Your task to perform on an android device: Go to notification settings Image 0: 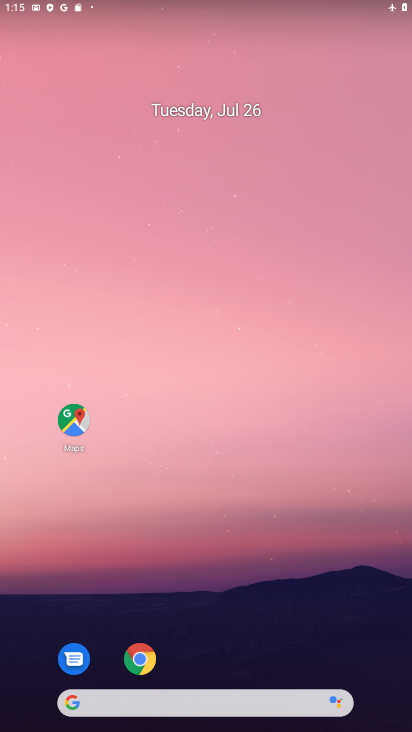
Step 0: drag from (263, 667) to (277, 24)
Your task to perform on an android device: Go to notification settings Image 1: 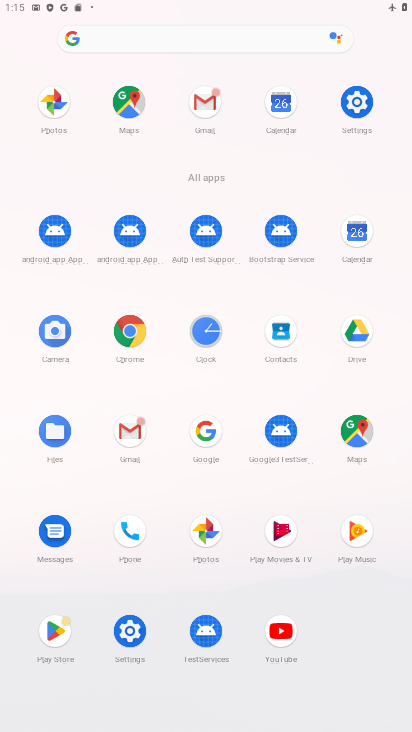
Step 1: click (353, 102)
Your task to perform on an android device: Go to notification settings Image 2: 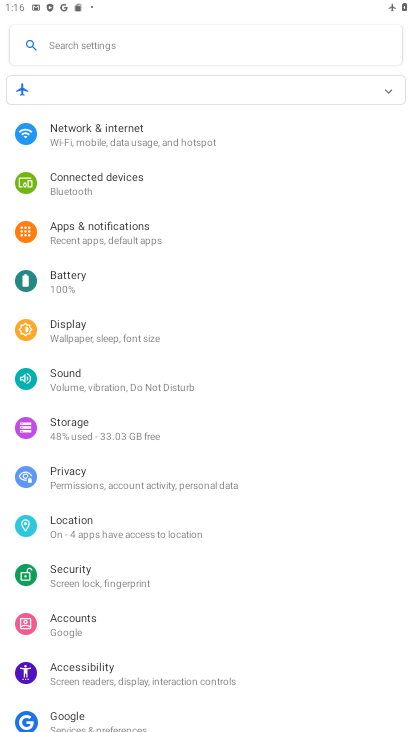
Step 2: click (94, 238)
Your task to perform on an android device: Go to notification settings Image 3: 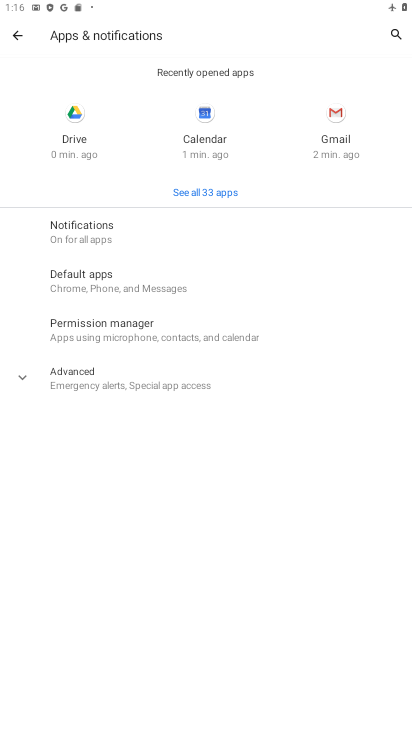
Step 3: click (88, 226)
Your task to perform on an android device: Go to notification settings Image 4: 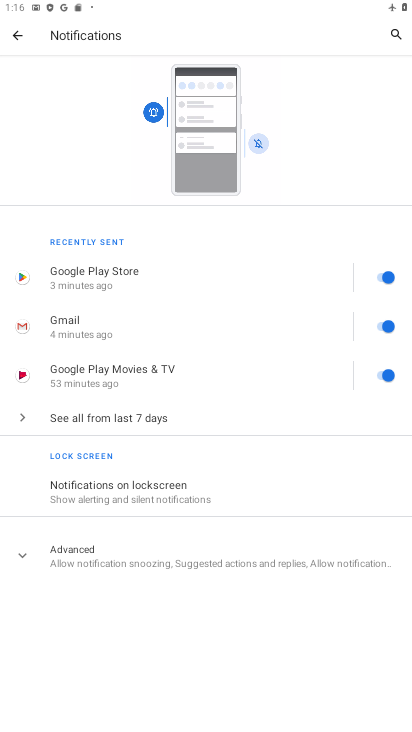
Step 4: task complete